Your task to perform on an android device: Go to notification settings Image 0: 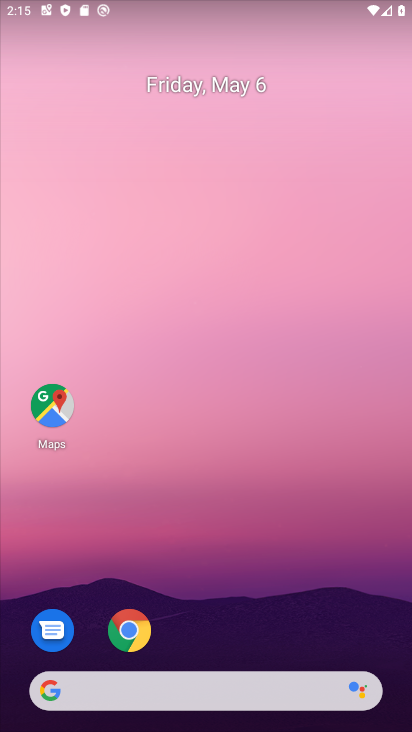
Step 0: drag from (218, 683) to (218, 37)
Your task to perform on an android device: Go to notification settings Image 1: 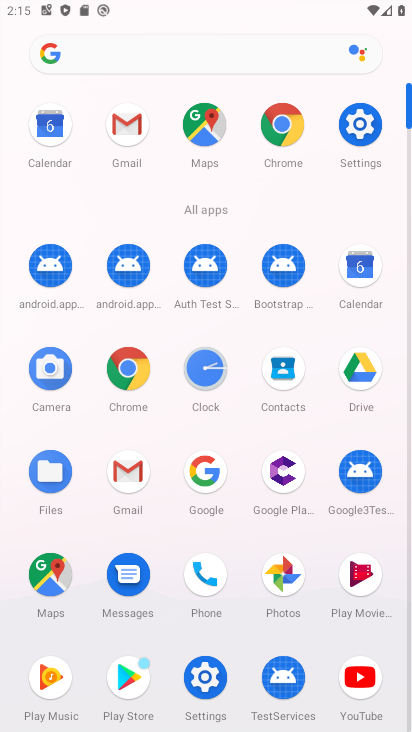
Step 1: click (354, 148)
Your task to perform on an android device: Go to notification settings Image 2: 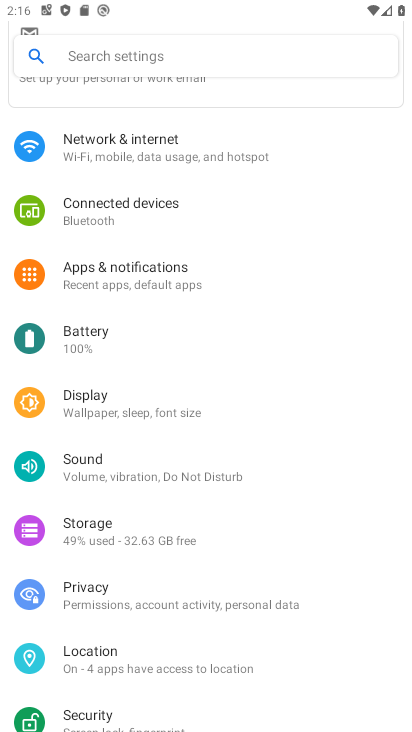
Step 2: click (125, 289)
Your task to perform on an android device: Go to notification settings Image 3: 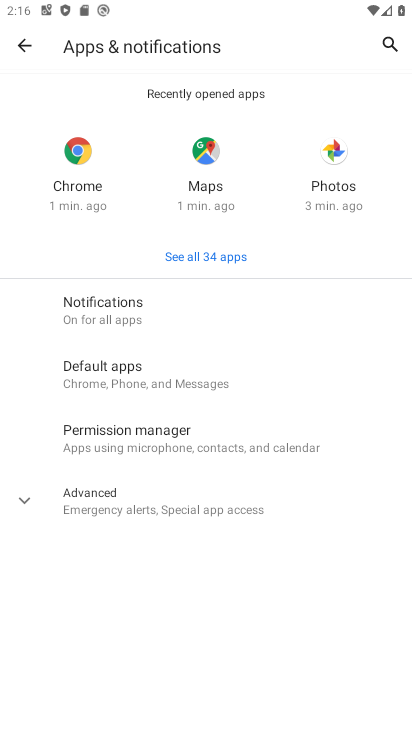
Step 3: task complete